Your task to perform on an android device: Open Google Maps and go to "Timeline" Image 0: 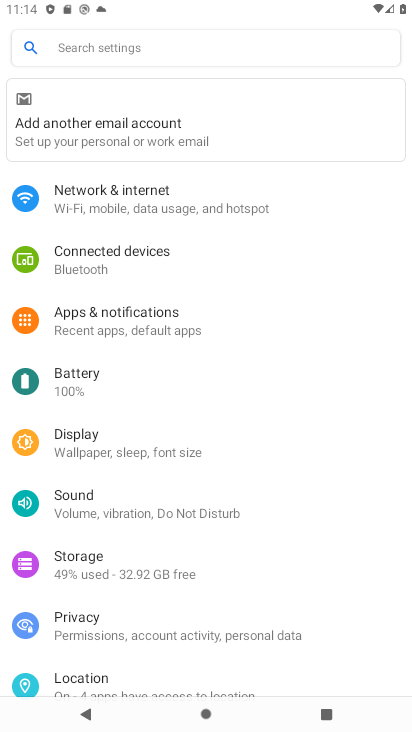
Step 0: press home button
Your task to perform on an android device: Open Google Maps and go to "Timeline" Image 1: 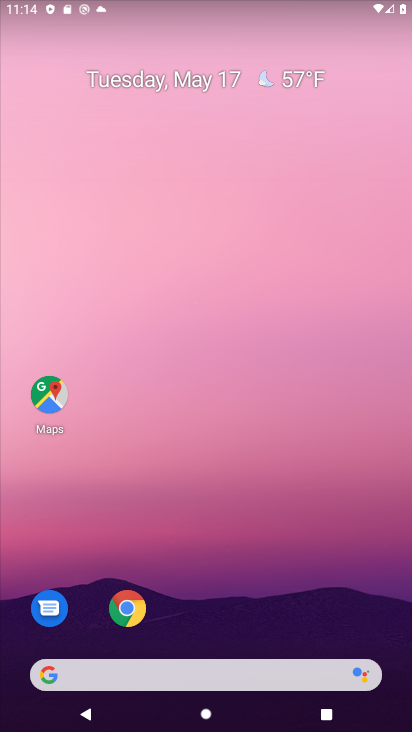
Step 1: click (48, 406)
Your task to perform on an android device: Open Google Maps and go to "Timeline" Image 2: 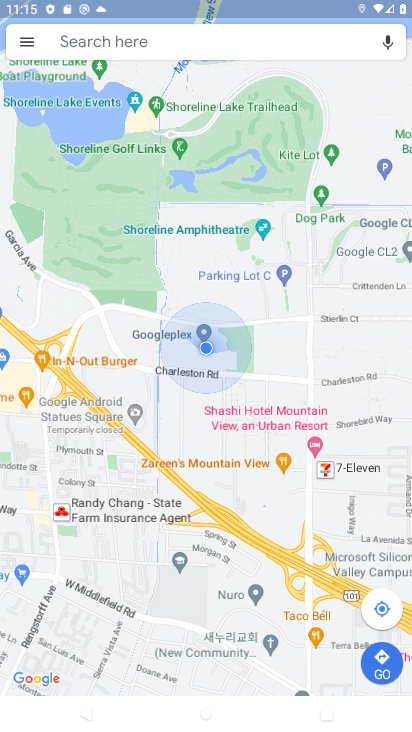
Step 2: click (28, 48)
Your task to perform on an android device: Open Google Maps and go to "Timeline" Image 3: 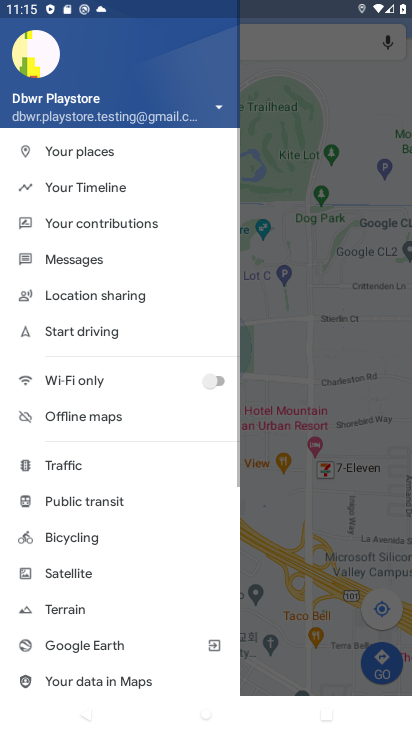
Step 3: click (79, 192)
Your task to perform on an android device: Open Google Maps and go to "Timeline" Image 4: 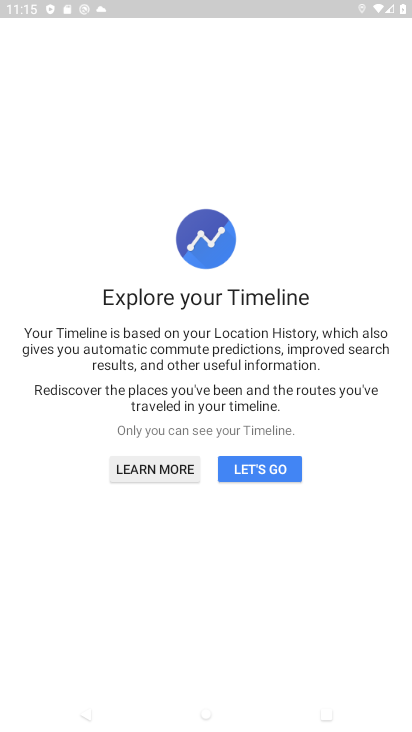
Step 4: click (275, 476)
Your task to perform on an android device: Open Google Maps and go to "Timeline" Image 5: 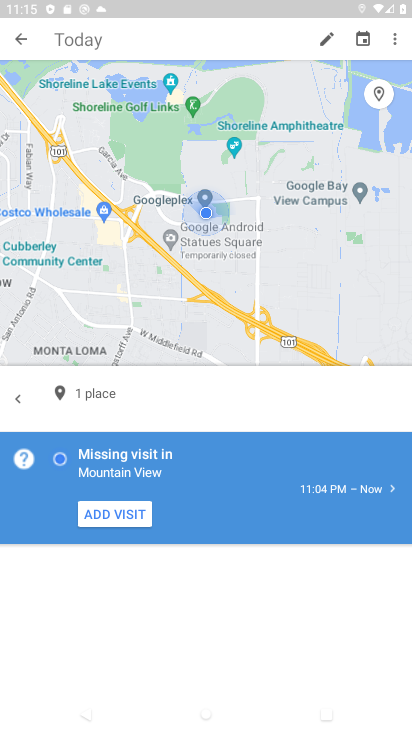
Step 5: task complete